Your task to perform on an android device: turn on bluetooth scan Image 0: 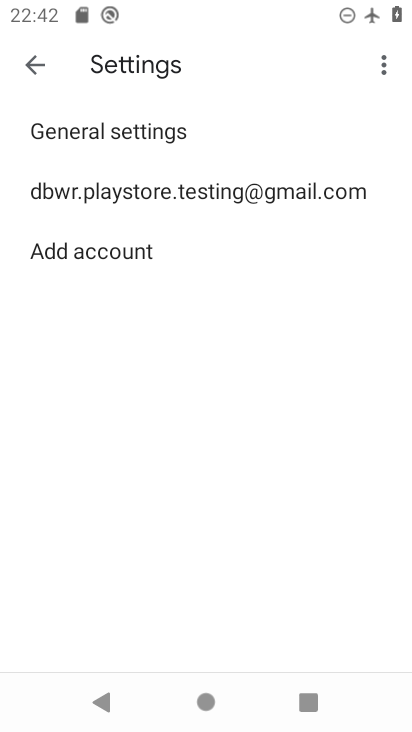
Step 0: press home button
Your task to perform on an android device: turn on bluetooth scan Image 1: 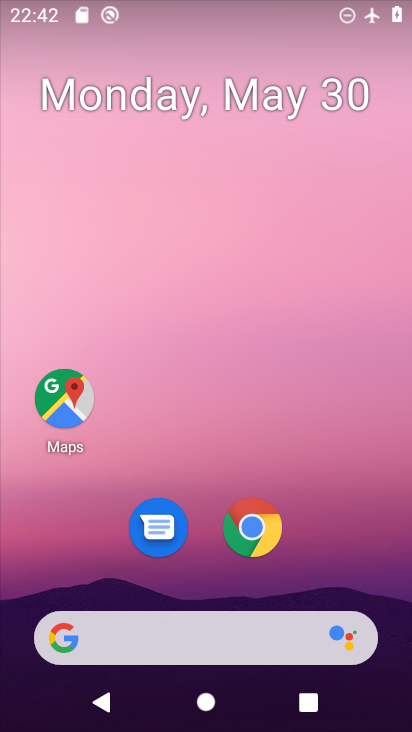
Step 1: drag from (315, 550) to (341, 138)
Your task to perform on an android device: turn on bluetooth scan Image 2: 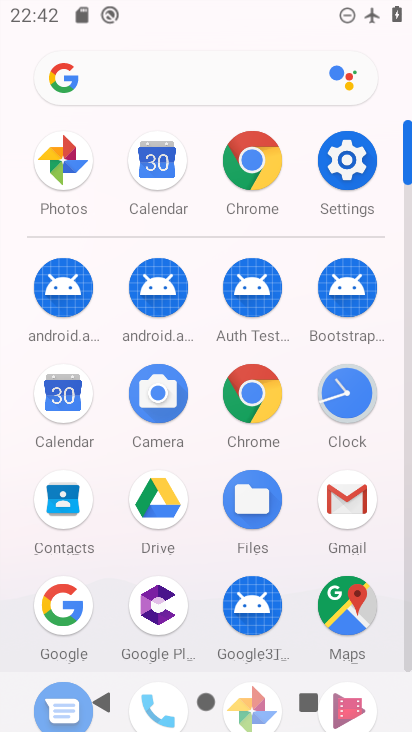
Step 2: click (340, 143)
Your task to perform on an android device: turn on bluetooth scan Image 3: 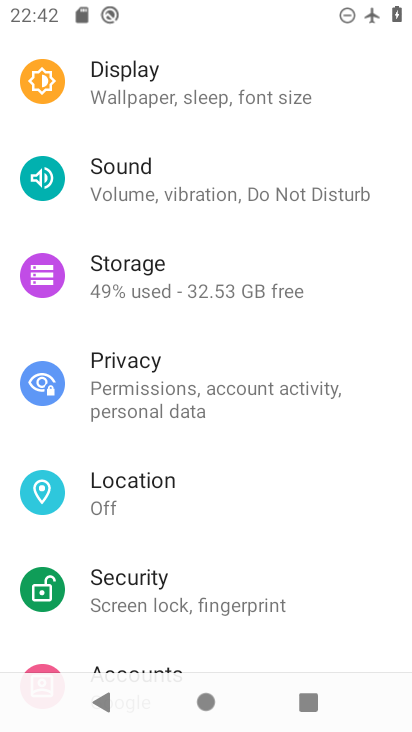
Step 3: drag from (170, 184) to (211, 524)
Your task to perform on an android device: turn on bluetooth scan Image 4: 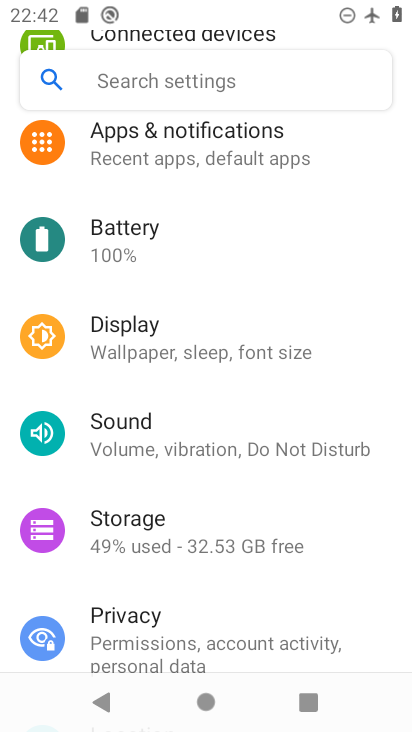
Step 4: click (204, 79)
Your task to perform on an android device: turn on bluetooth scan Image 5: 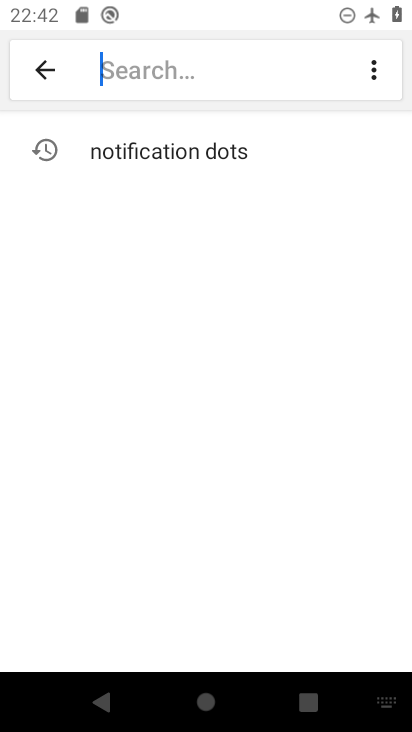
Step 5: click (189, 70)
Your task to perform on an android device: turn on bluetooth scan Image 6: 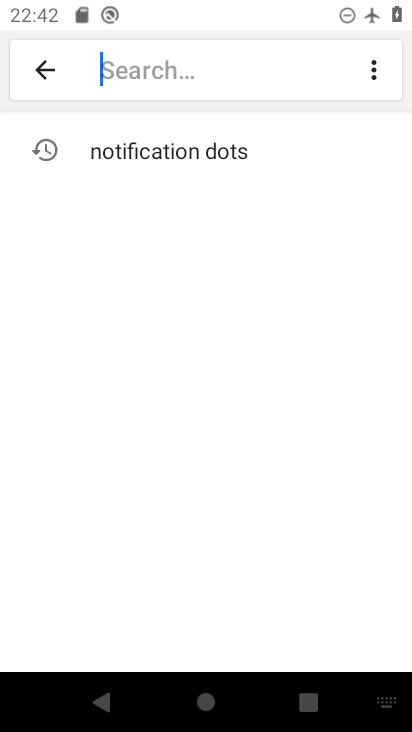
Step 6: type "bluetooth scan"
Your task to perform on an android device: turn on bluetooth scan Image 7: 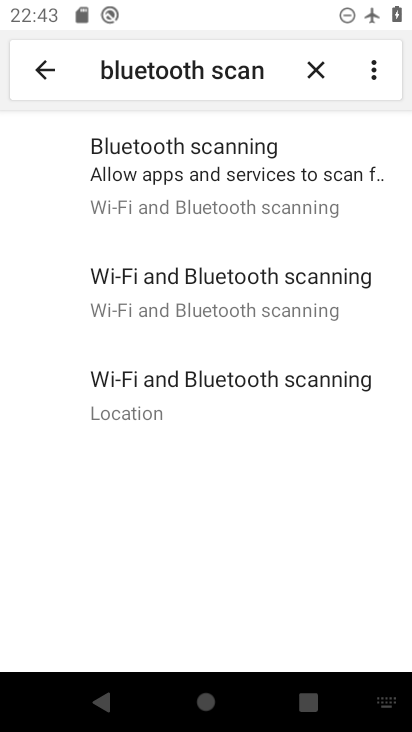
Step 7: click (209, 176)
Your task to perform on an android device: turn on bluetooth scan Image 8: 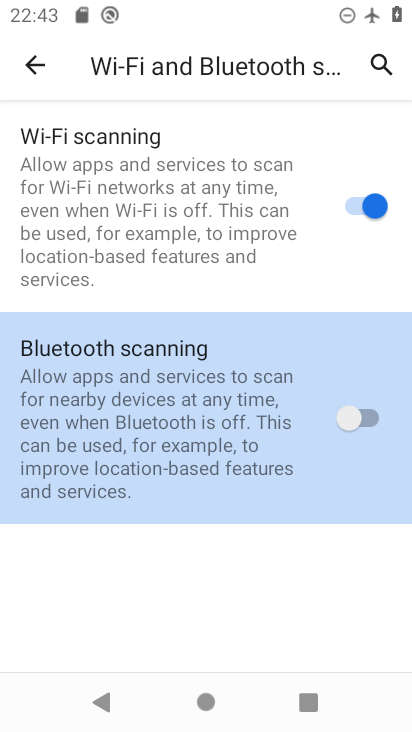
Step 8: click (368, 414)
Your task to perform on an android device: turn on bluetooth scan Image 9: 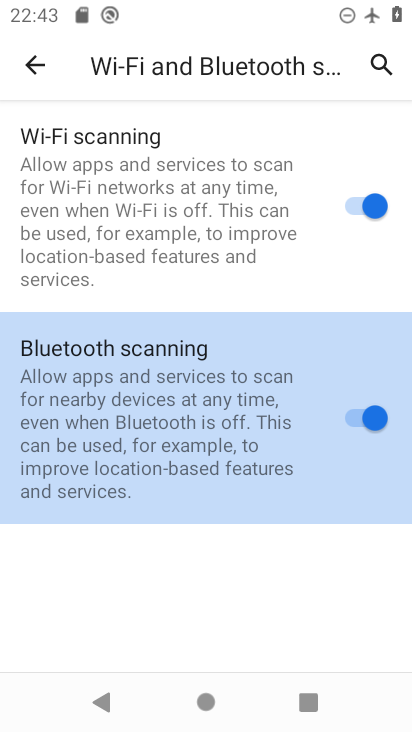
Step 9: task complete